Your task to perform on an android device: Open maps Image 0: 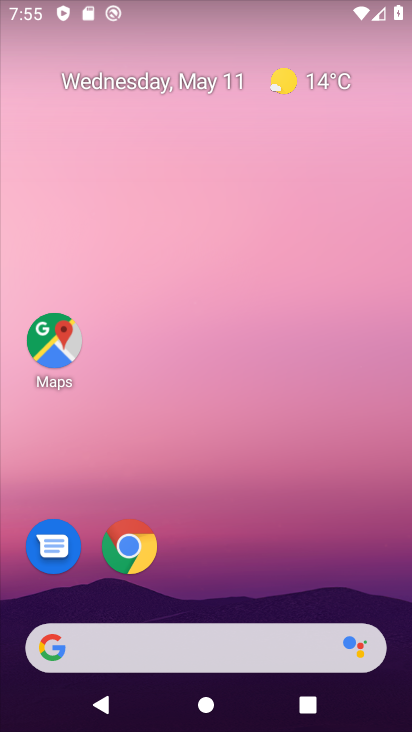
Step 0: click (74, 344)
Your task to perform on an android device: Open maps Image 1: 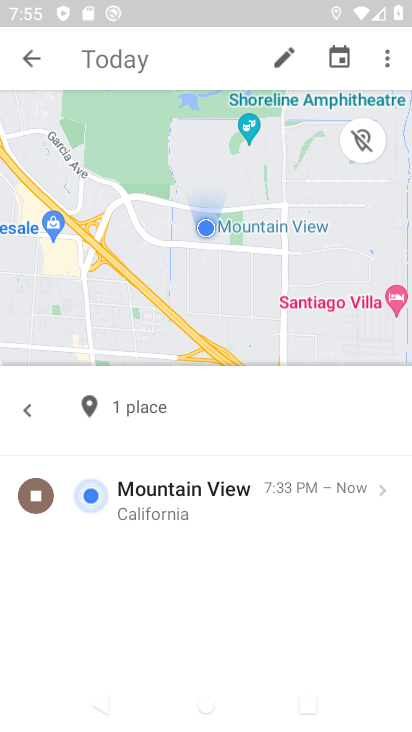
Step 1: task complete